Your task to perform on an android device: Go to wifi settings Image 0: 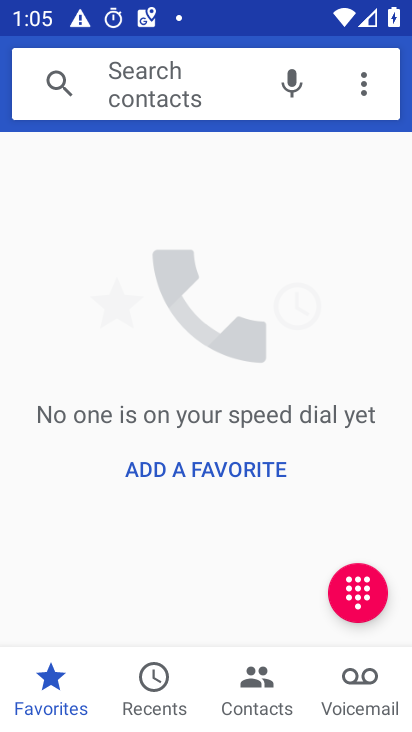
Step 0: press home button
Your task to perform on an android device: Go to wifi settings Image 1: 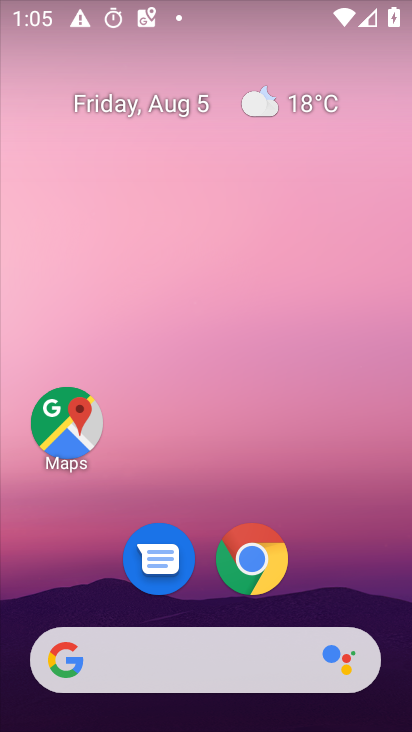
Step 1: drag from (51, 710) to (242, 167)
Your task to perform on an android device: Go to wifi settings Image 2: 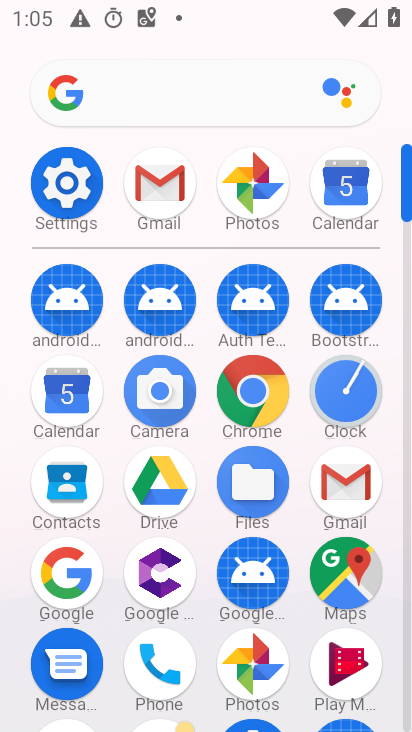
Step 2: click (51, 178)
Your task to perform on an android device: Go to wifi settings Image 3: 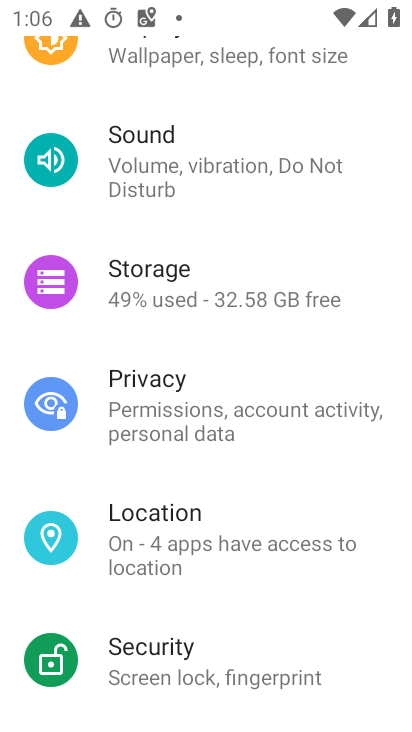
Step 3: drag from (326, 95) to (376, 525)
Your task to perform on an android device: Go to wifi settings Image 4: 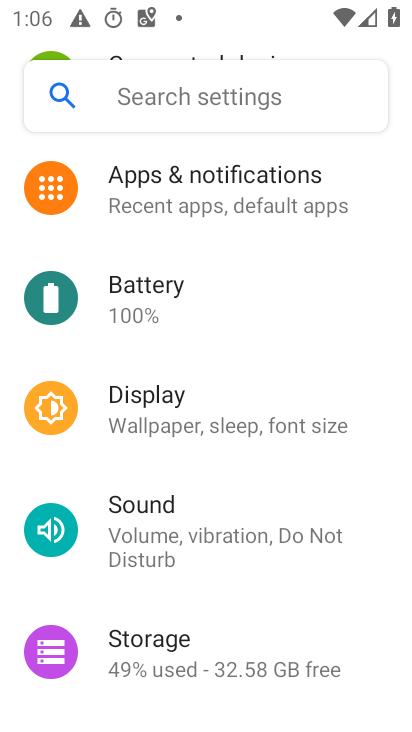
Step 4: drag from (380, 149) to (405, 494)
Your task to perform on an android device: Go to wifi settings Image 5: 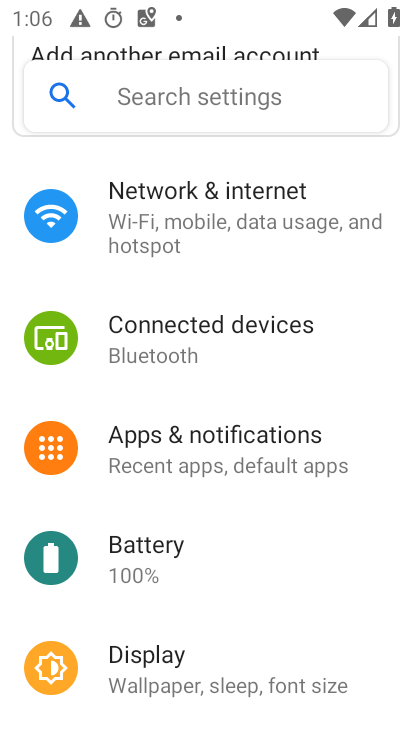
Step 5: click (259, 212)
Your task to perform on an android device: Go to wifi settings Image 6: 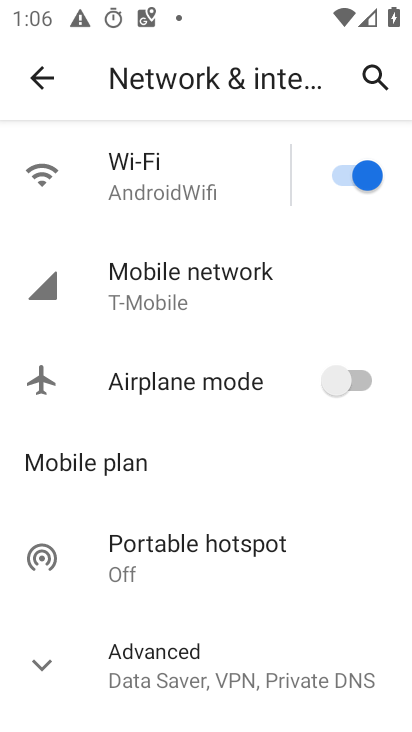
Step 6: task complete